Your task to perform on an android device: Go to Google Image 0: 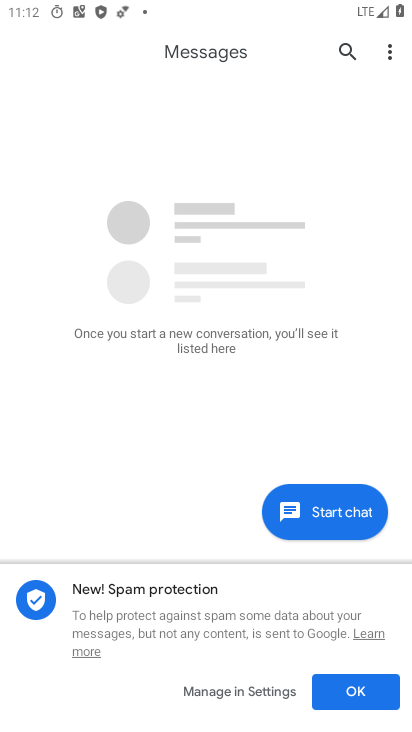
Step 0: press home button
Your task to perform on an android device: Go to Google Image 1: 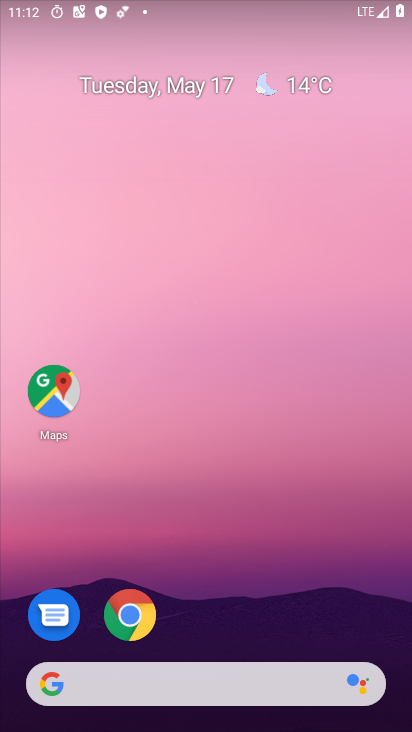
Step 1: drag from (144, 681) to (285, 192)
Your task to perform on an android device: Go to Google Image 2: 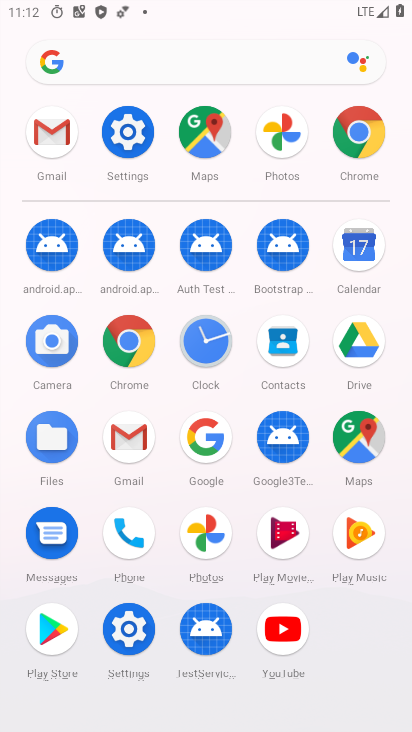
Step 2: click (208, 439)
Your task to perform on an android device: Go to Google Image 3: 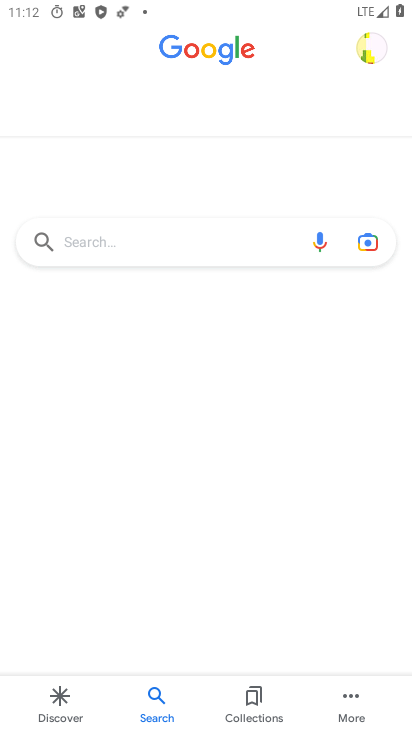
Step 3: click (71, 700)
Your task to perform on an android device: Go to Google Image 4: 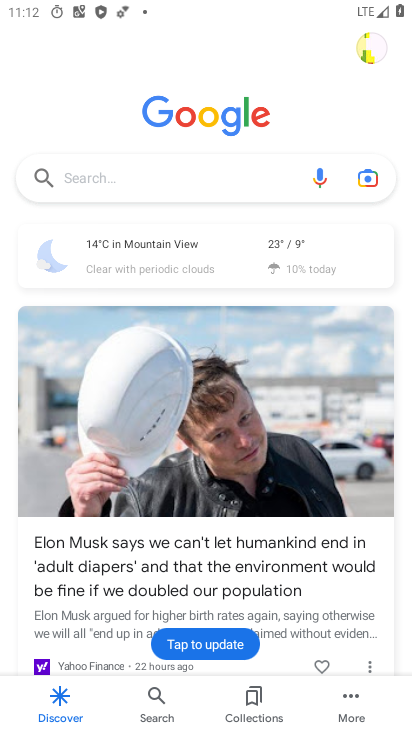
Step 4: task complete